Your task to perform on an android device: toggle airplane mode Image 0: 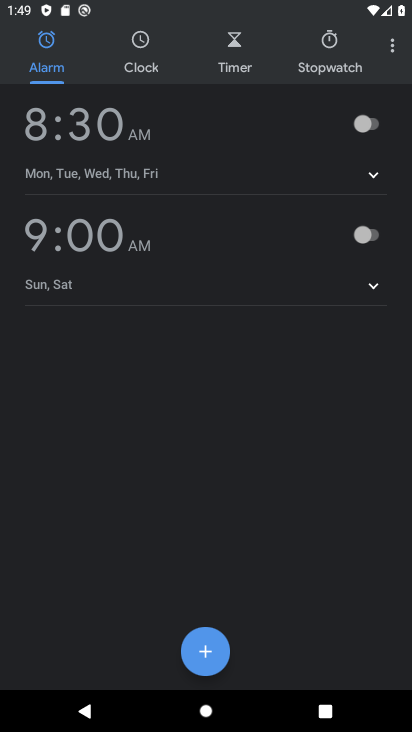
Step 0: press home button
Your task to perform on an android device: toggle airplane mode Image 1: 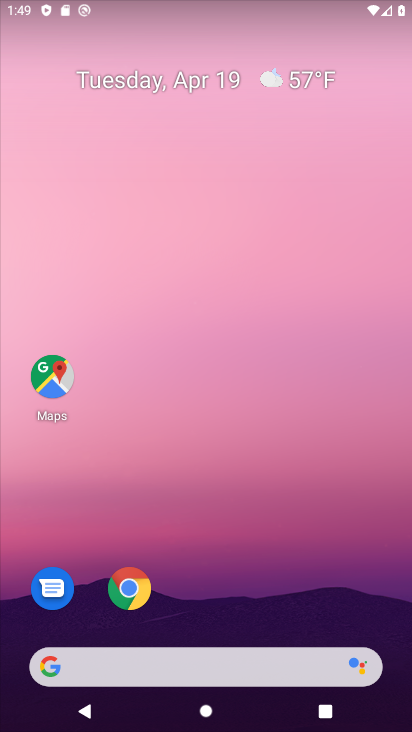
Step 1: drag from (296, 540) to (315, 101)
Your task to perform on an android device: toggle airplane mode Image 2: 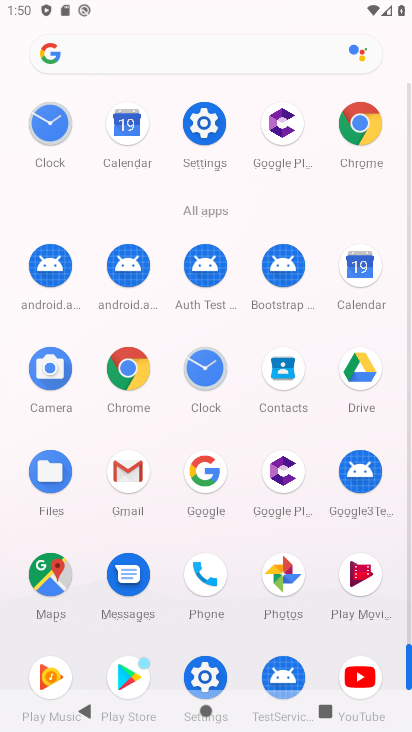
Step 2: click (206, 122)
Your task to perform on an android device: toggle airplane mode Image 3: 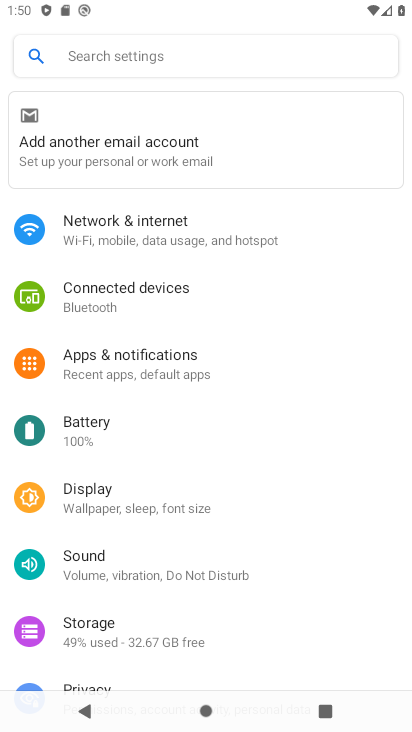
Step 3: click (216, 237)
Your task to perform on an android device: toggle airplane mode Image 4: 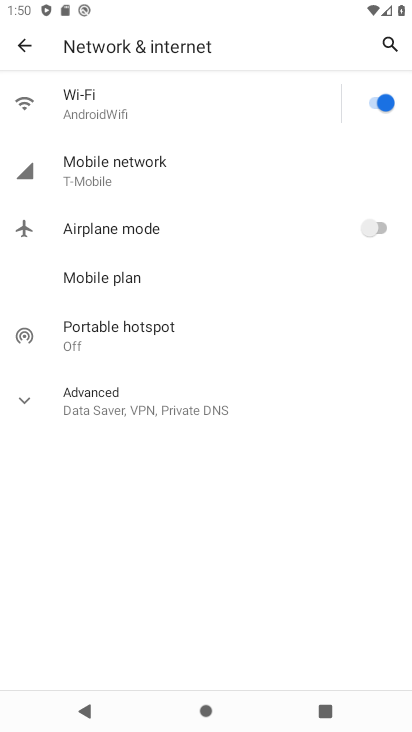
Step 4: click (374, 218)
Your task to perform on an android device: toggle airplane mode Image 5: 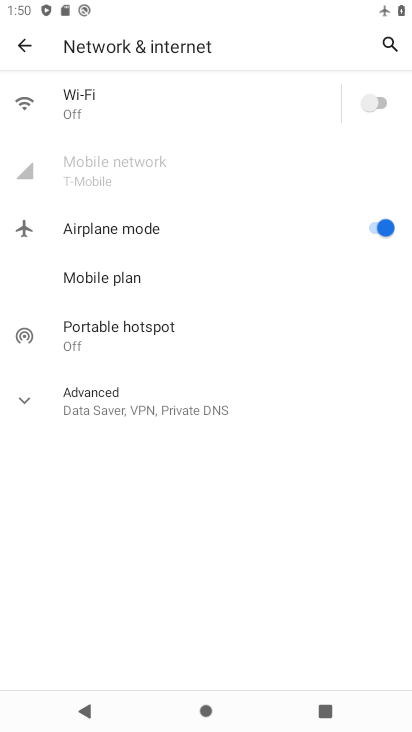
Step 5: task complete